Your task to perform on an android device: find which apps use the phone's location Image 0: 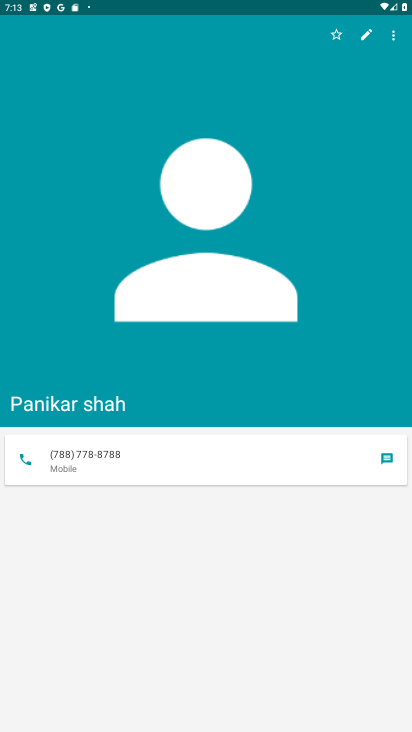
Step 0: press home button
Your task to perform on an android device: find which apps use the phone's location Image 1: 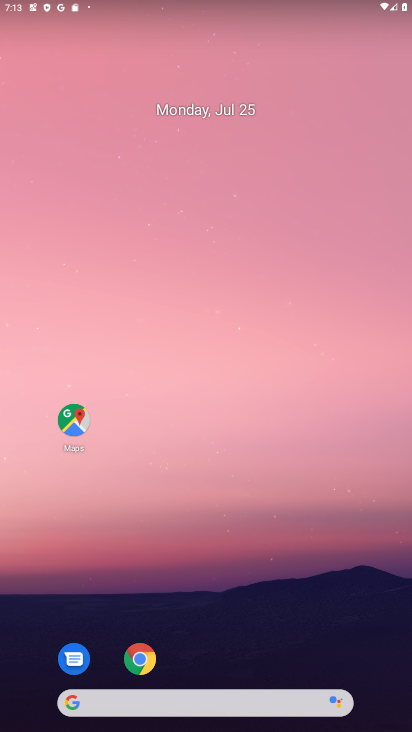
Step 1: drag from (183, 659) to (145, 131)
Your task to perform on an android device: find which apps use the phone's location Image 2: 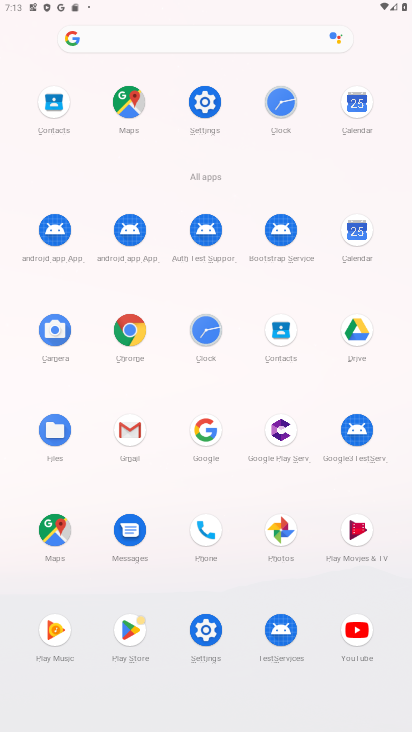
Step 2: click (207, 629)
Your task to perform on an android device: find which apps use the phone's location Image 3: 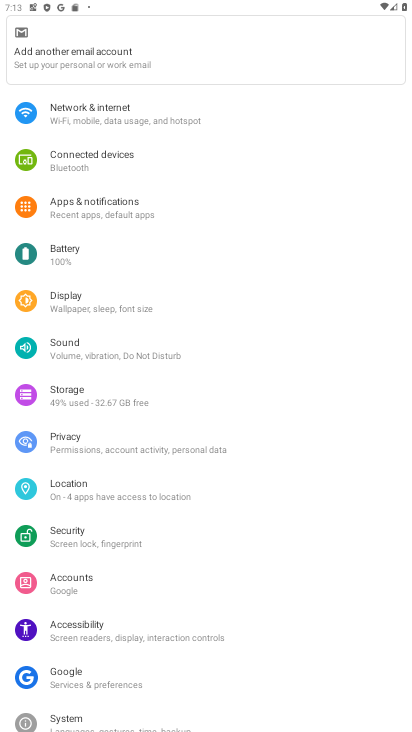
Step 3: click (95, 499)
Your task to perform on an android device: find which apps use the phone's location Image 4: 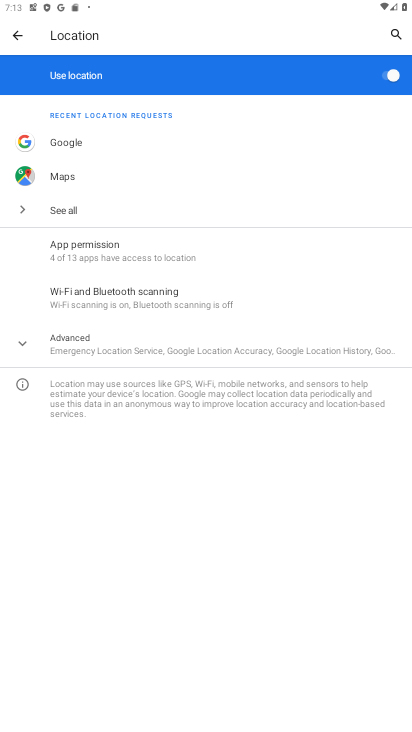
Step 4: click (69, 259)
Your task to perform on an android device: find which apps use the phone's location Image 5: 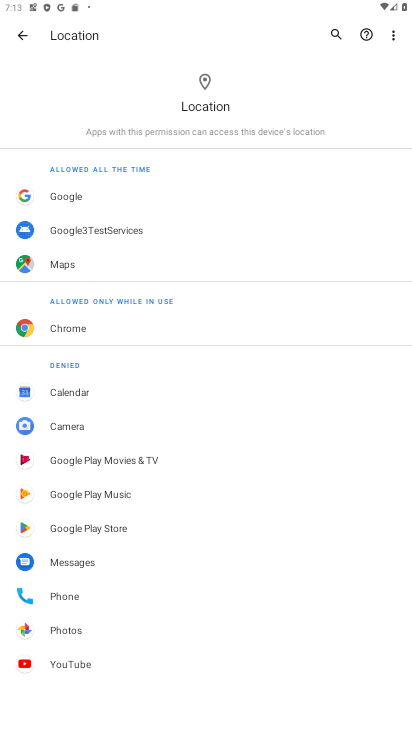
Step 5: task complete